Your task to perform on an android device: turn on location history Image 0: 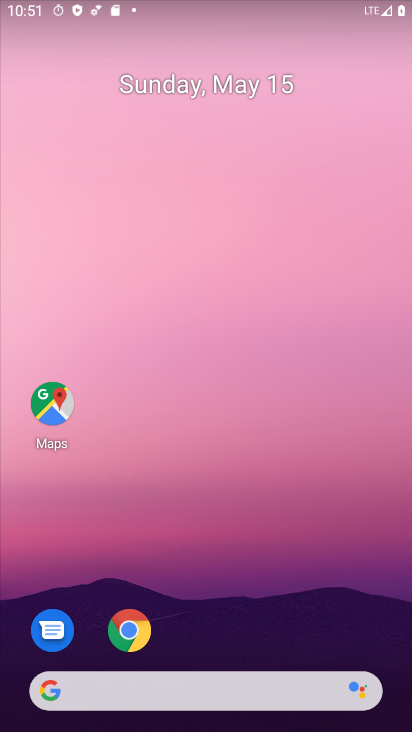
Step 0: drag from (187, 537) to (214, 207)
Your task to perform on an android device: turn on location history Image 1: 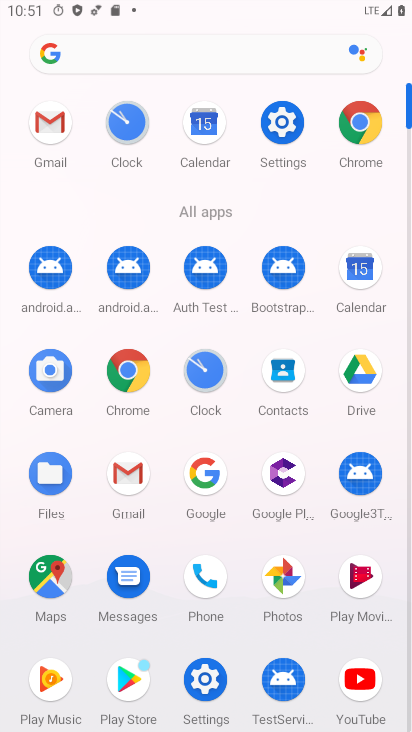
Step 1: click (278, 125)
Your task to perform on an android device: turn on location history Image 2: 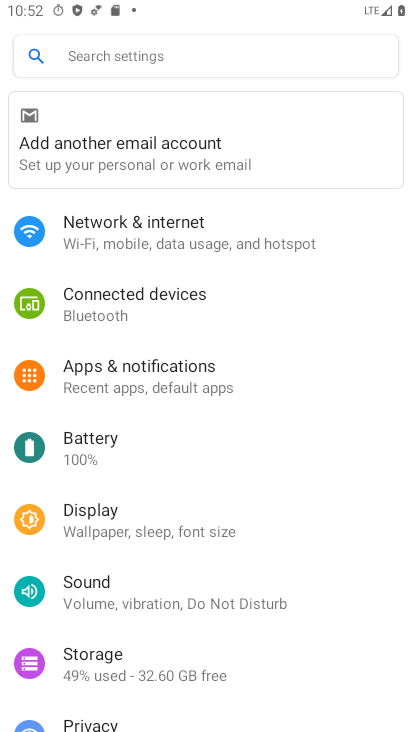
Step 2: drag from (145, 595) to (220, 173)
Your task to perform on an android device: turn on location history Image 3: 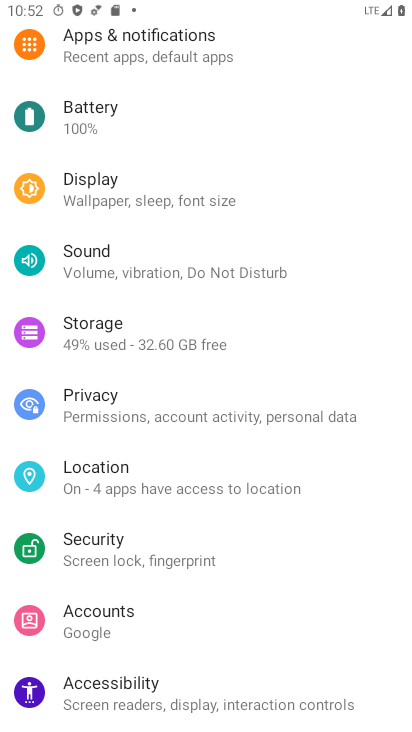
Step 3: click (133, 481)
Your task to perform on an android device: turn on location history Image 4: 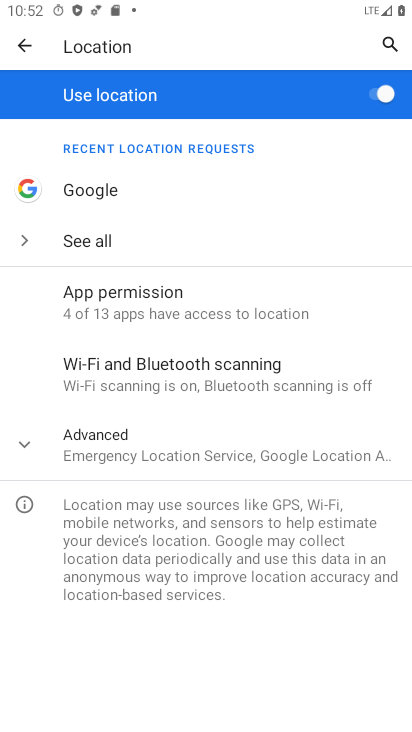
Step 4: click (149, 444)
Your task to perform on an android device: turn on location history Image 5: 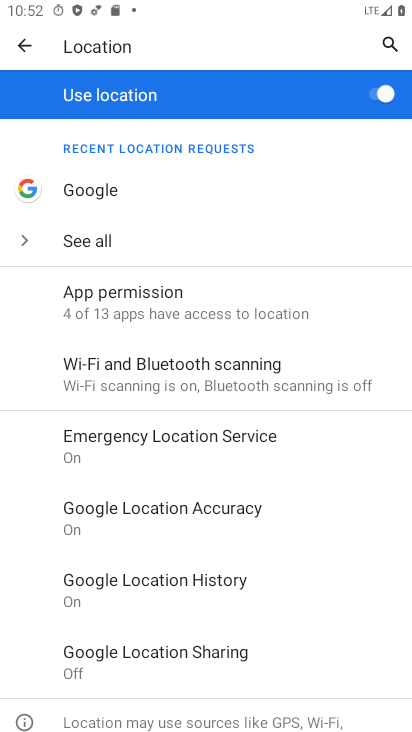
Step 5: click (162, 581)
Your task to perform on an android device: turn on location history Image 6: 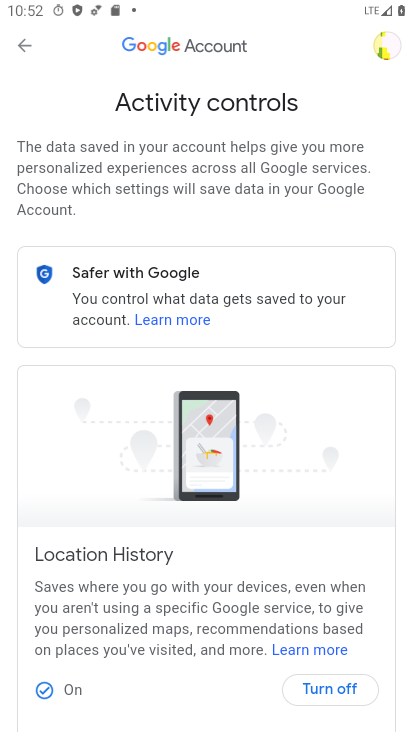
Step 6: task complete